Your task to perform on an android device: snooze an email in the gmail app Image 0: 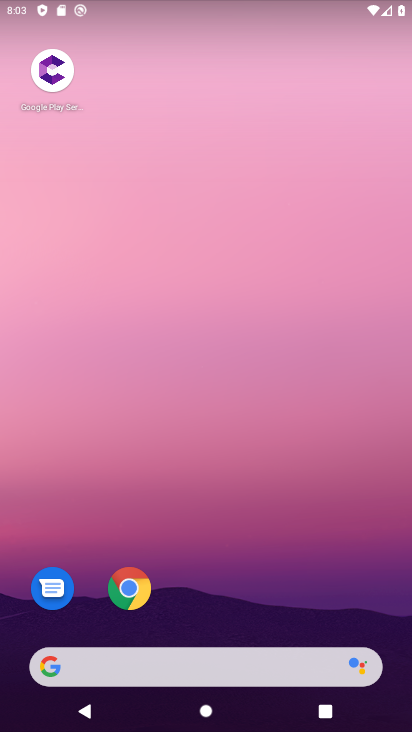
Step 0: drag from (302, 617) to (220, 5)
Your task to perform on an android device: snooze an email in the gmail app Image 1: 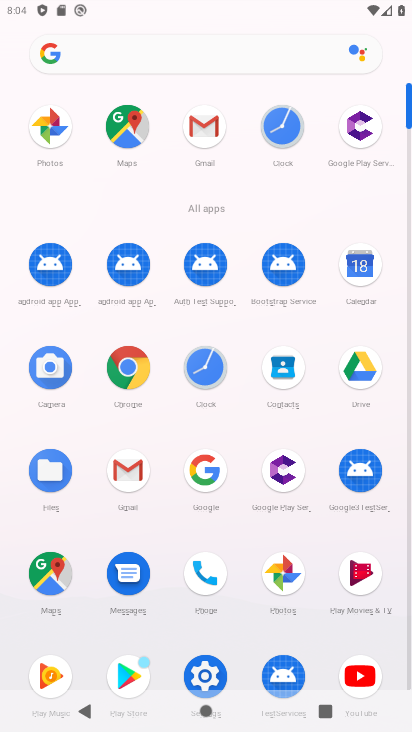
Step 1: click (190, 132)
Your task to perform on an android device: snooze an email in the gmail app Image 2: 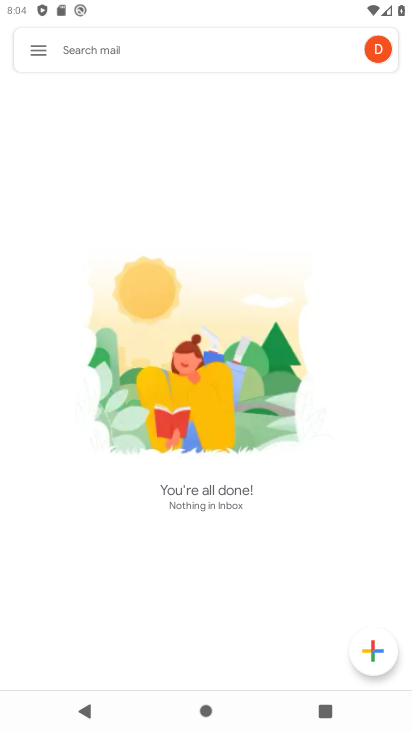
Step 2: click (36, 55)
Your task to perform on an android device: snooze an email in the gmail app Image 3: 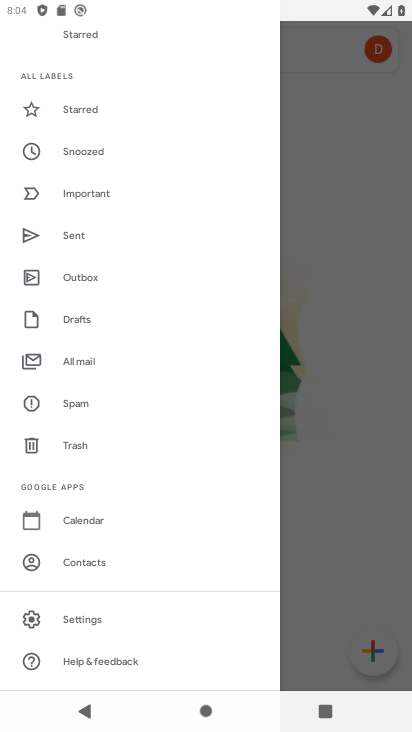
Step 3: click (83, 368)
Your task to perform on an android device: snooze an email in the gmail app Image 4: 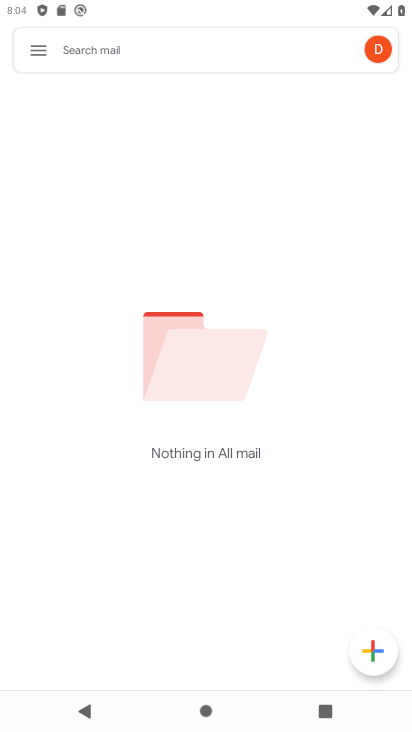
Step 4: task complete